Your task to perform on an android device: refresh tabs in the chrome app Image 0: 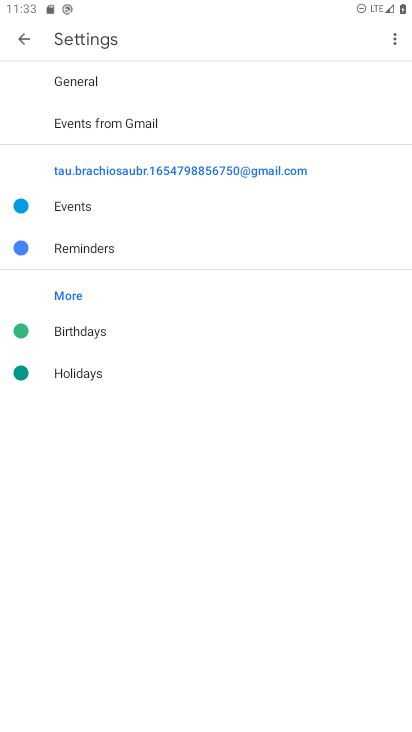
Step 0: press home button
Your task to perform on an android device: refresh tabs in the chrome app Image 1: 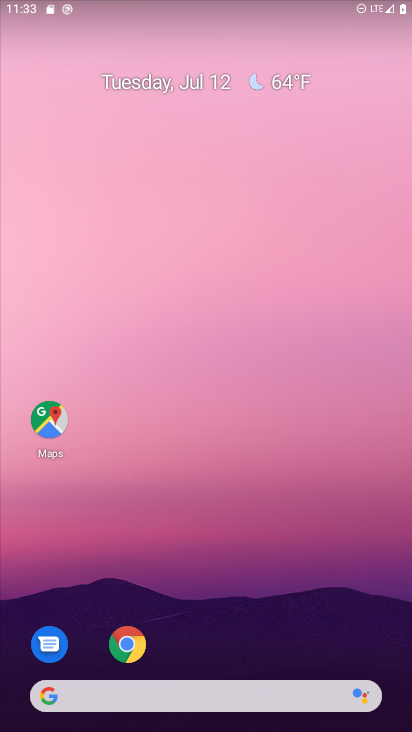
Step 1: click (125, 635)
Your task to perform on an android device: refresh tabs in the chrome app Image 2: 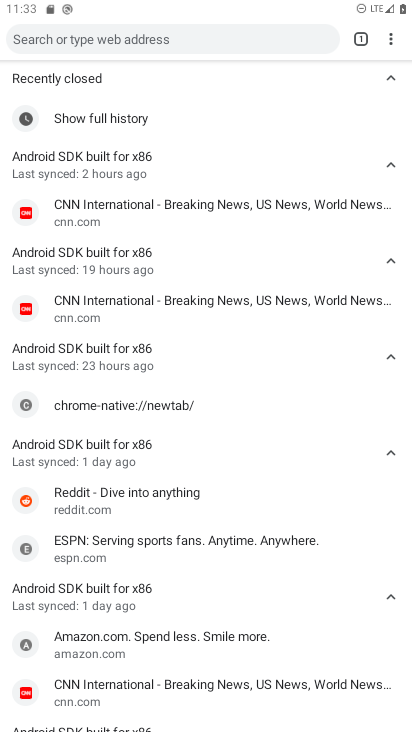
Step 2: click (391, 41)
Your task to perform on an android device: refresh tabs in the chrome app Image 3: 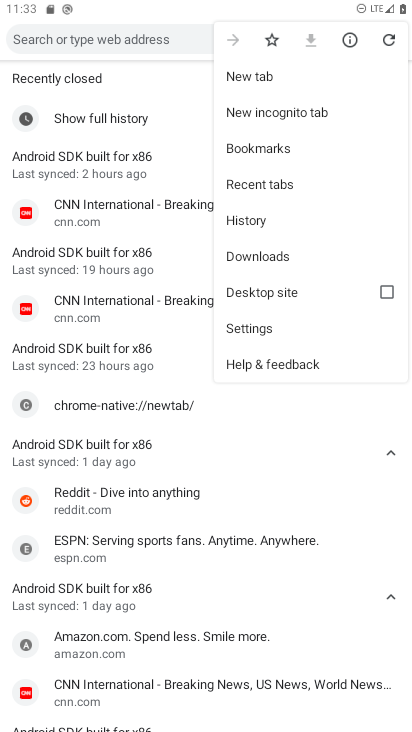
Step 3: click (239, 333)
Your task to perform on an android device: refresh tabs in the chrome app Image 4: 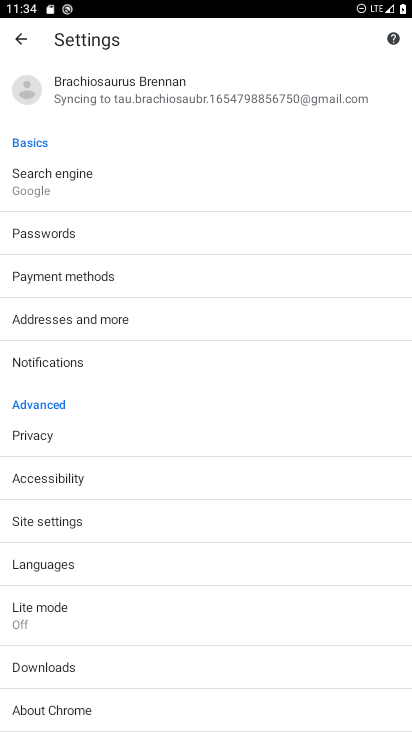
Step 4: click (20, 38)
Your task to perform on an android device: refresh tabs in the chrome app Image 5: 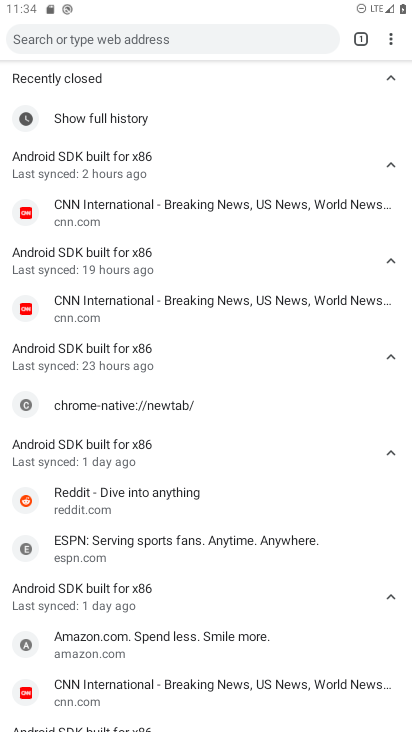
Step 5: click (383, 44)
Your task to perform on an android device: refresh tabs in the chrome app Image 6: 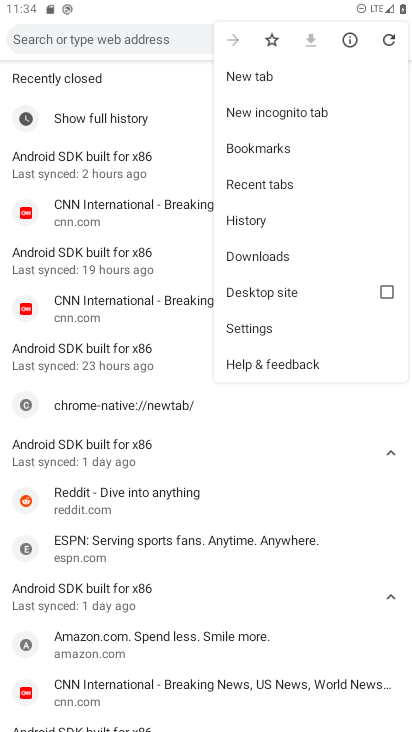
Step 6: click (382, 40)
Your task to perform on an android device: refresh tabs in the chrome app Image 7: 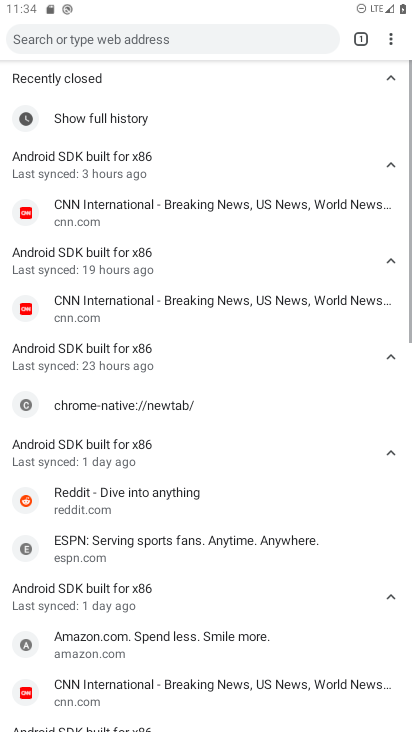
Step 7: task complete